Your task to perform on an android device: open chrome privacy settings Image 0: 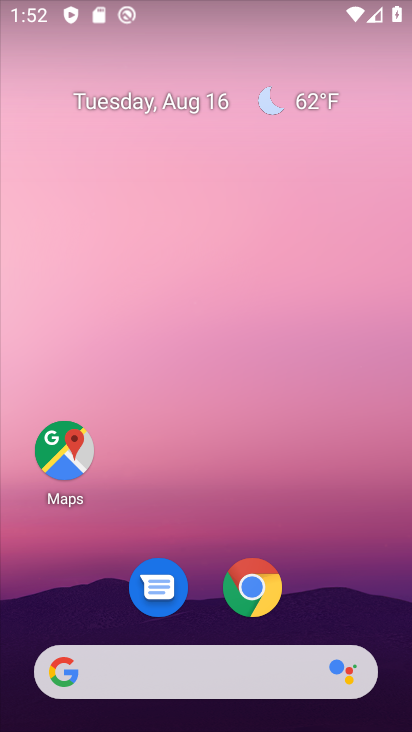
Step 0: click (258, 595)
Your task to perform on an android device: open chrome privacy settings Image 1: 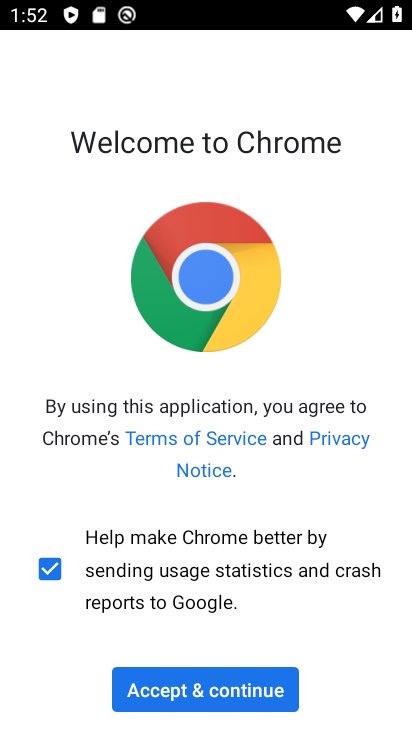
Step 1: task complete